Your task to perform on an android device: see sites visited before in the chrome app Image 0: 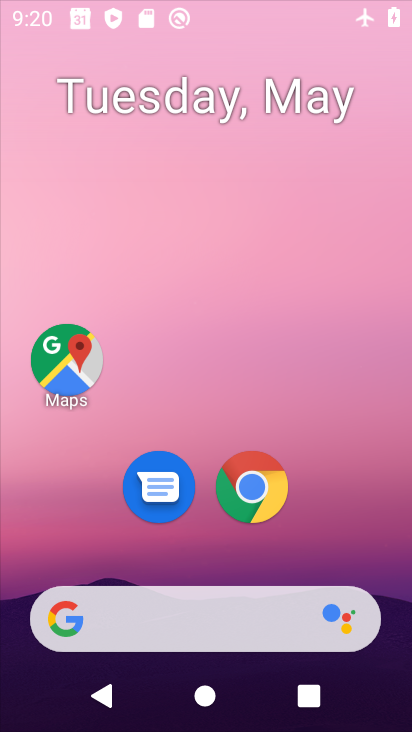
Step 0: drag from (236, 0) to (402, 313)
Your task to perform on an android device: see sites visited before in the chrome app Image 1: 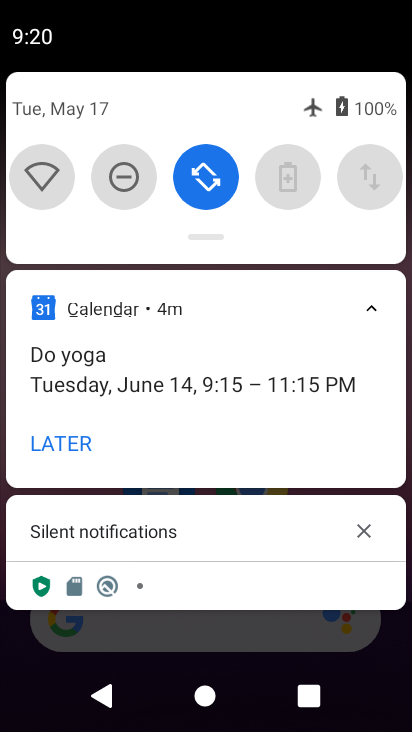
Step 1: drag from (215, 458) to (294, 58)
Your task to perform on an android device: see sites visited before in the chrome app Image 2: 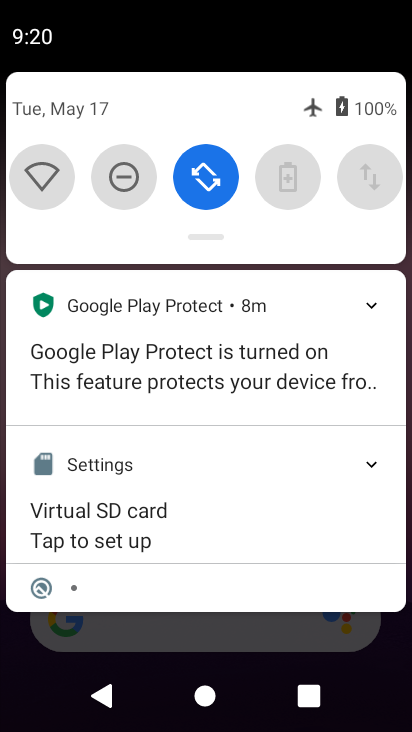
Step 2: press back button
Your task to perform on an android device: see sites visited before in the chrome app Image 3: 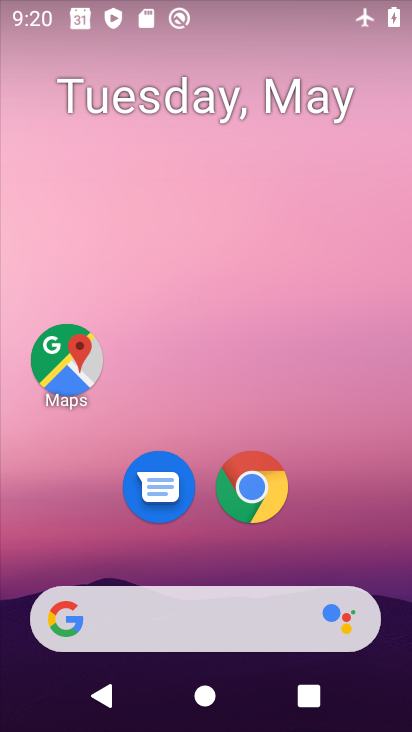
Step 3: drag from (165, 534) to (235, 96)
Your task to perform on an android device: see sites visited before in the chrome app Image 4: 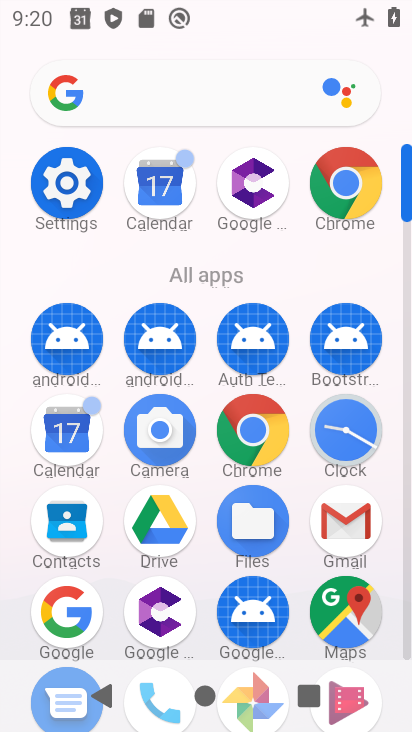
Step 4: click (327, 182)
Your task to perform on an android device: see sites visited before in the chrome app Image 5: 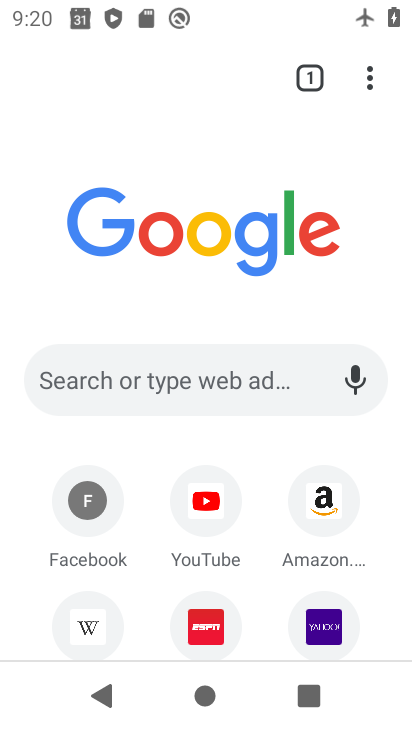
Step 5: click (366, 78)
Your task to perform on an android device: see sites visited before in the chrome app Image 6: 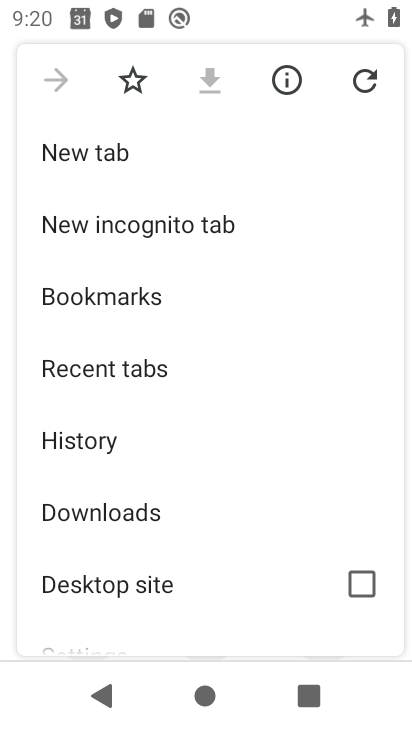
Step 6: drag from (199, 532) to (251, 169)
Your task to perform on an android device: see sites visited before in the chrome app Image 7: 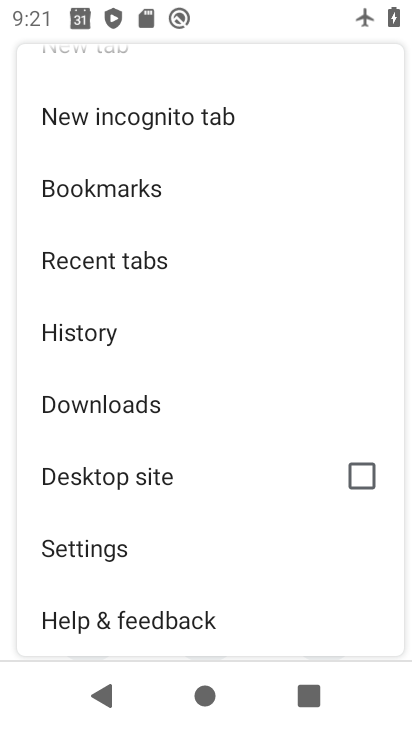
Step 7: click (114, 181)
Your task to perform on an android device: see sites visited before in the chrome app Image 8: 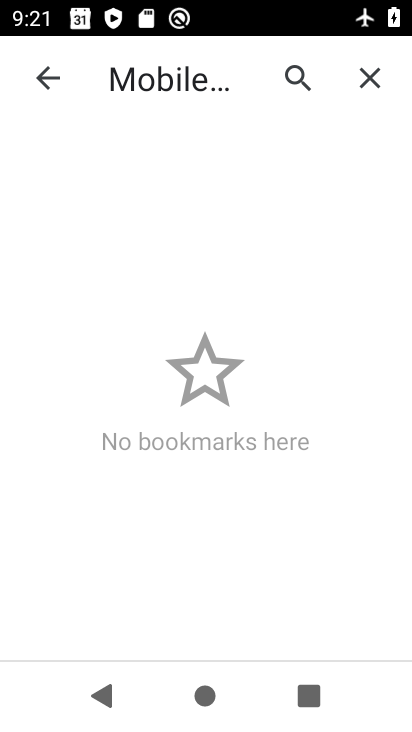
Step 8: drag from (225, 468) to (264, 100)
Your task to perform on an android device: see sites visited before in the chrome app Image 9: 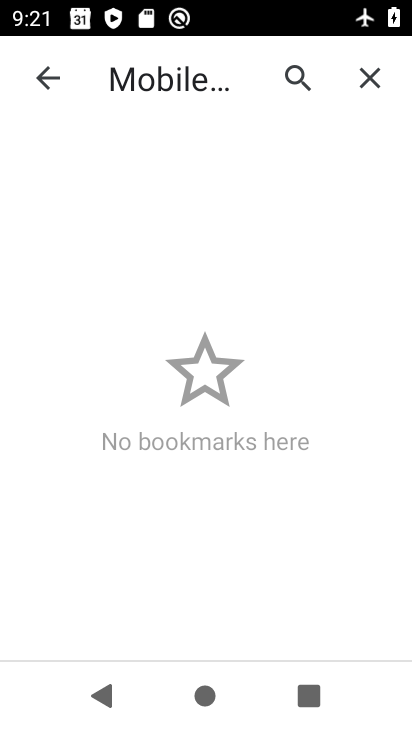
Step 9: click (292, 453)
Your task to perform on an android device: see sites visited before in the chrome app Image 10: 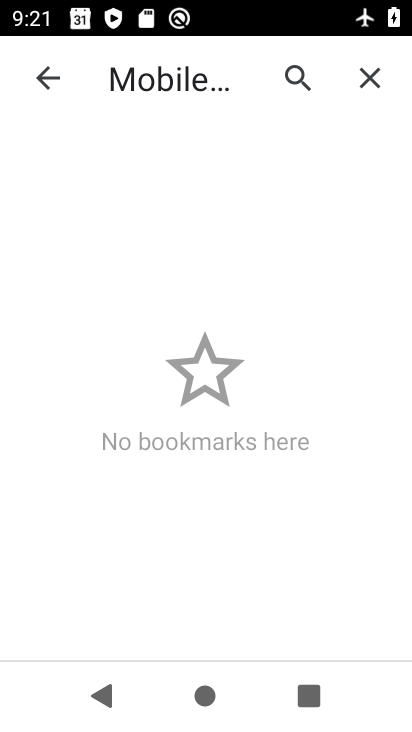
Step 10: click (287, 387)
Your task to perform on an android device: see sites visited before in the chrome app Image 11: 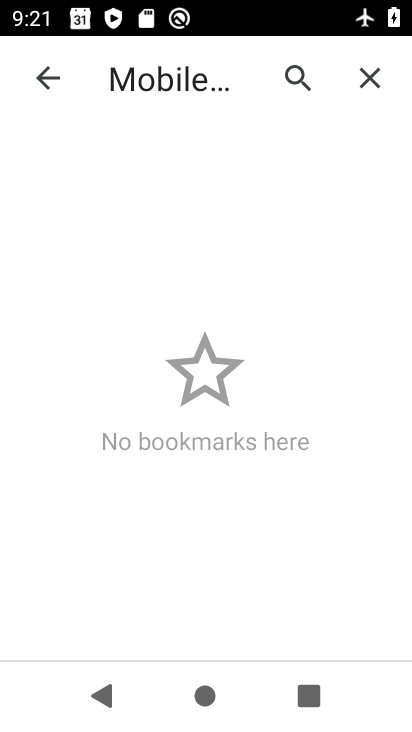
Step 11: task complete